Your task to perform on an android device: Go to ESPN.com Image 0: 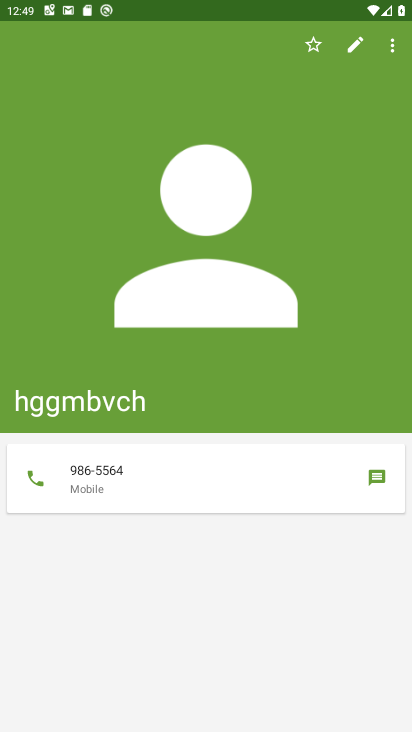
Step 0: press home button
Your task to perform on an android device: Go to ESPN.com Image 1: 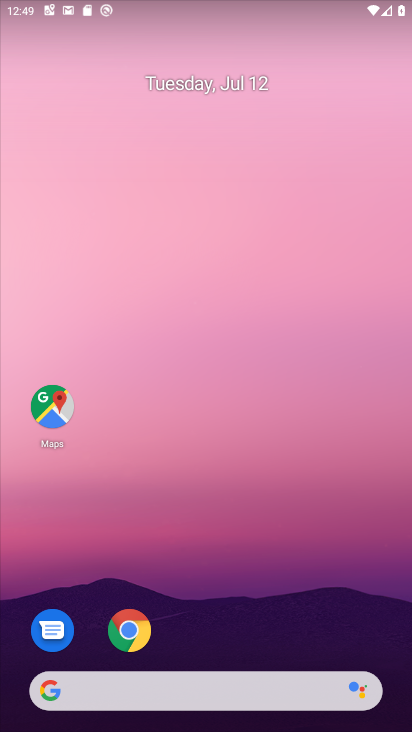
Step 1: drag from (294, 694) to (342, 274)
Your task to perform on an android device: Go to ESPN.com Image 2: 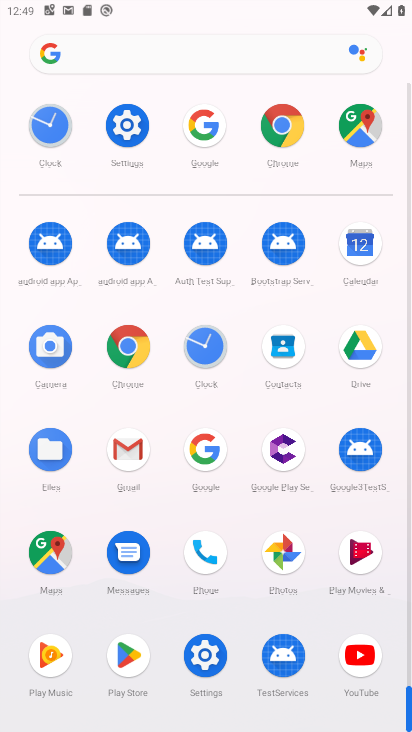
Step 2: click (287, 142)
Your task to perform on an android device: Go to ESPN.com Image 3: 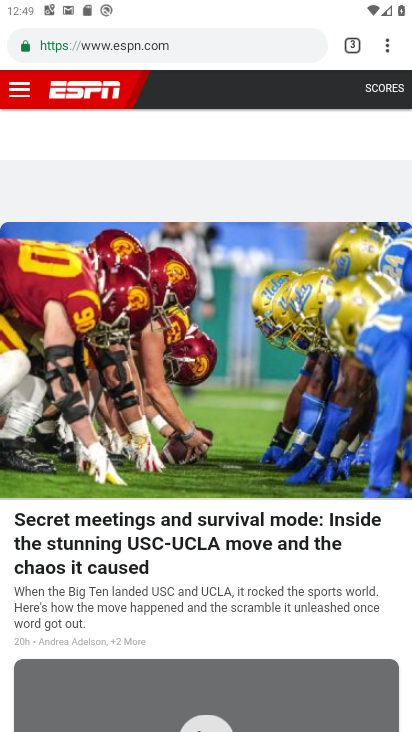
Step 3: click (226, 44)
Your task to perform on an android device: Go to ESPN.com Image 4: 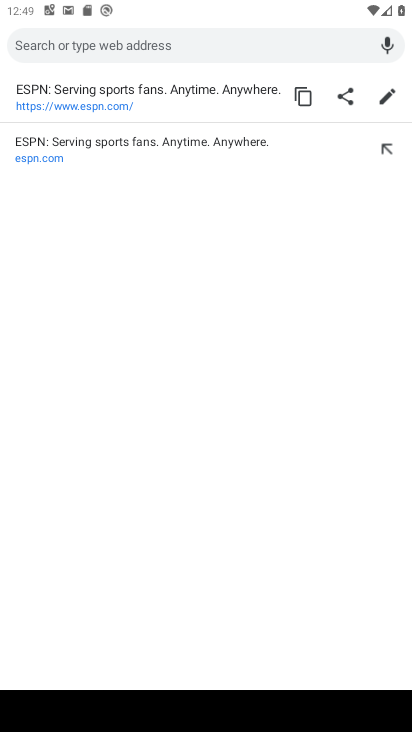
Step 4: type "espn.com"
Your task to perform on an android device: Go to ESPN.com Image 5: 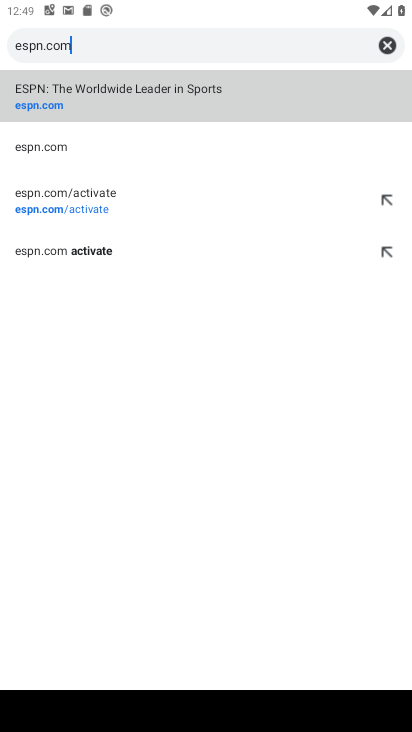
Step 5: click (257, 104)
Your task to perform on an android device: Go to ESPN.com Image 6: 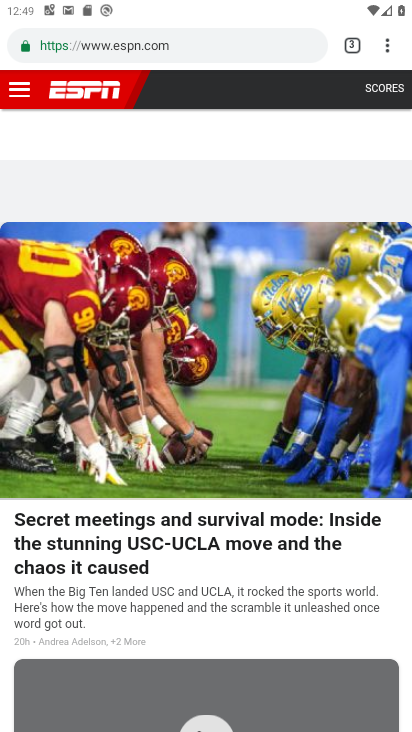
Step 6: task complete